Your task to perform on an android device: toggle show notifications on the lock screen Image 0: 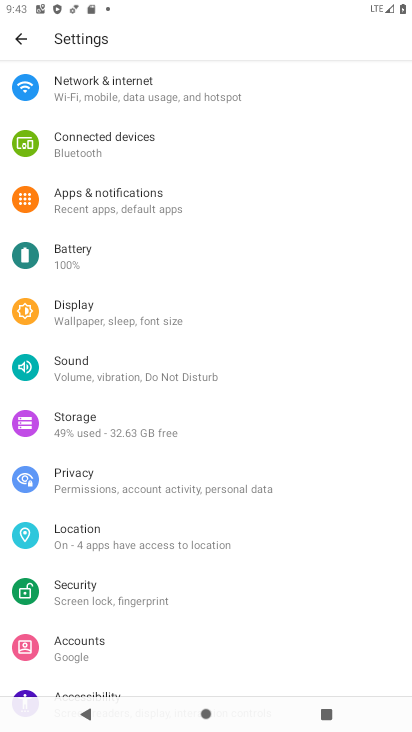
Step 0: click (98, 195)
Your task to perform on an android device: toggle show notifications on the lock screen Image 1: 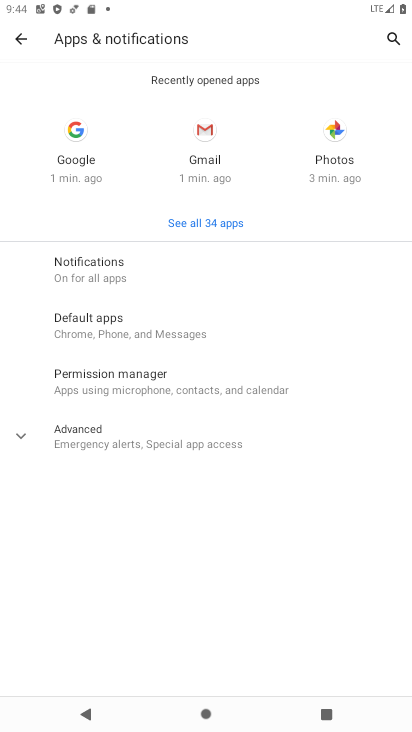
Step 1: click (83, 273)
Your task to perform on an android device: toggle show notifications on the lock screen Image 2: 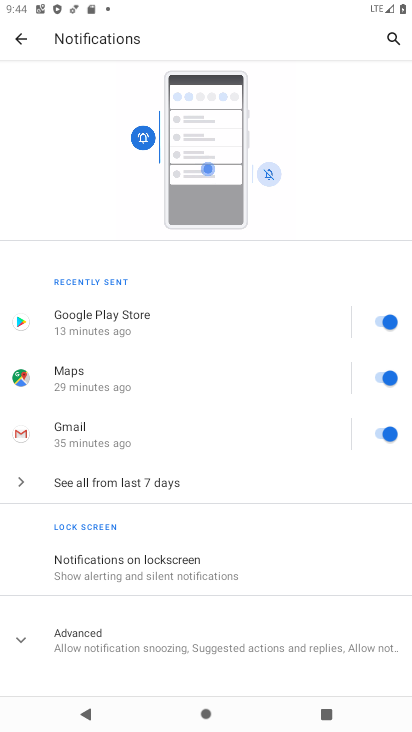
Step 2: click (125, 570)
Your task to perform on an android device: toggle show notifications on the lock screen Image 3: 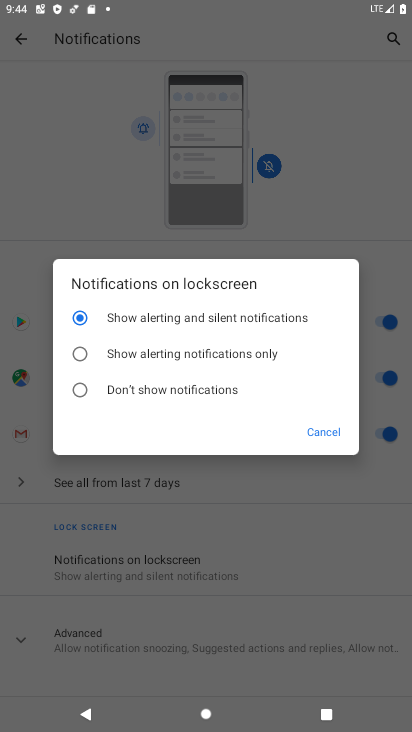
Step 3: click (79, 355)
Your task to perform on an android device: toggle show notifications on the lock screen Image 4: 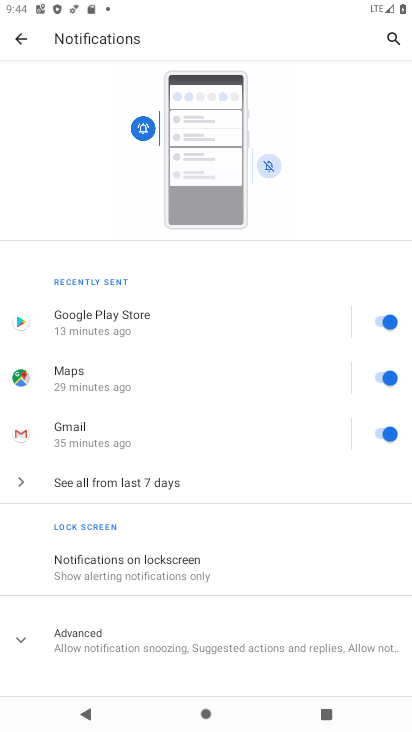
Step 4: task complete